Your task to perform on an android device: change keyboard looks Image 0: 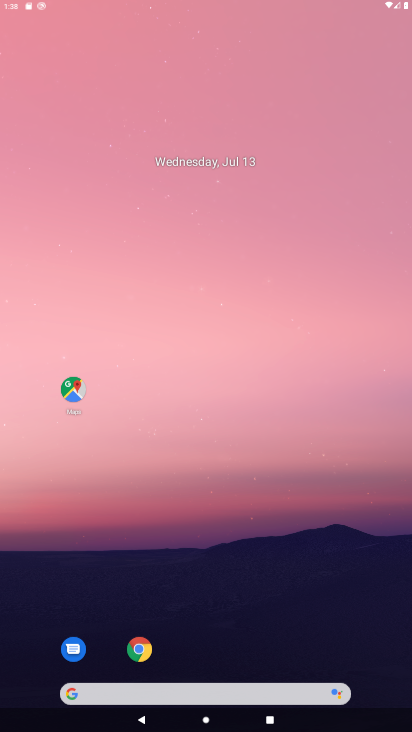
Step 0: press home button
Your task to perform on an android device: change keyboard looks Image 1: 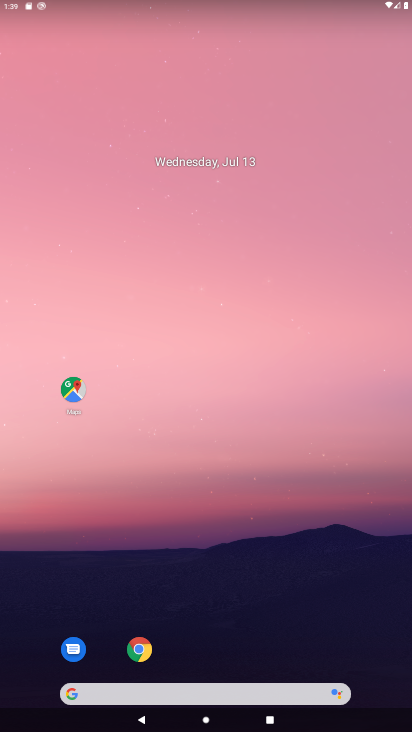
Step 1: drag from (214, 614) to (282, 107)
Your task to perform on an android device: change keyboard looks Image 2: 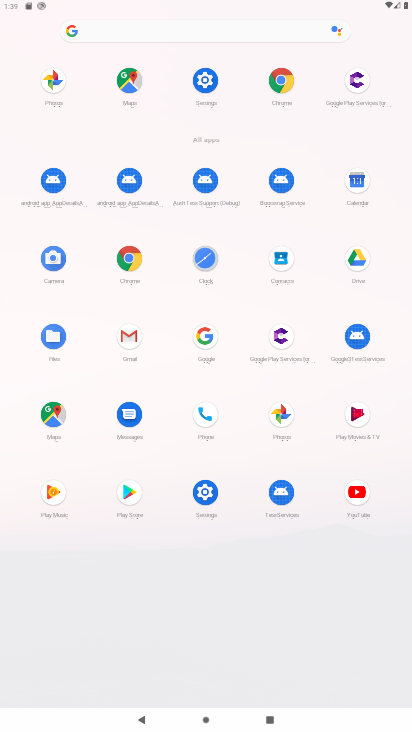
Step 2: click (200, 491)
Your task to perform on an android device: change keyboard looks Image 3: 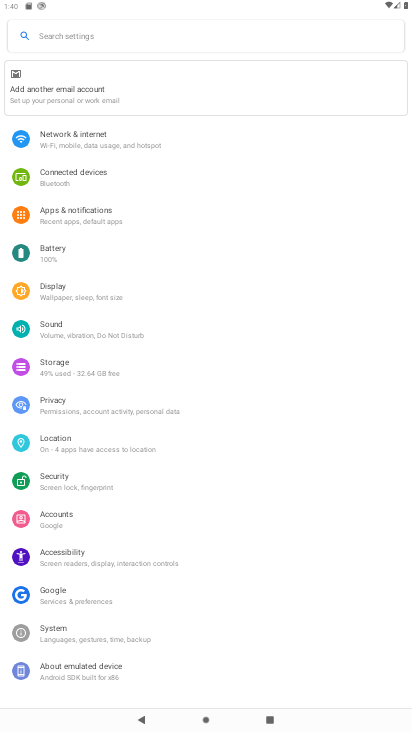
Step 3: click (67, 628)
Your task to perform on an android device: change keyboard looks Image 4: 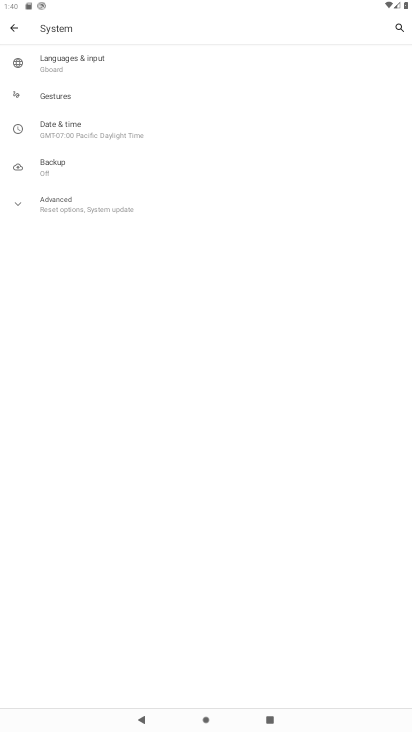
Step 4: click (78, 53)
Your task to perform on an android device: change keyboard looks Image 5: 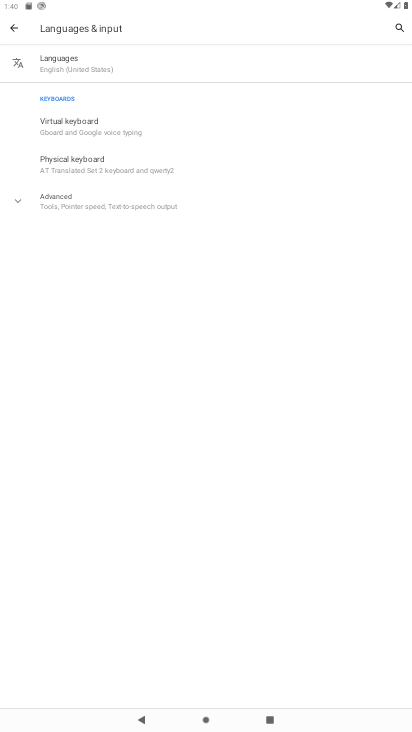
Step 5: click (60, 124)
Your task to perform on an android device: change keyboard looks Image 6: 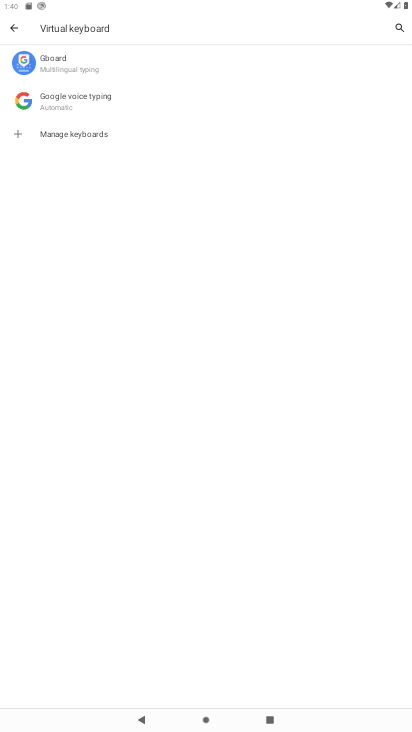
Step 6: click (47, 61)
Your task to perform on an android device: change keyboard looks Image 7: 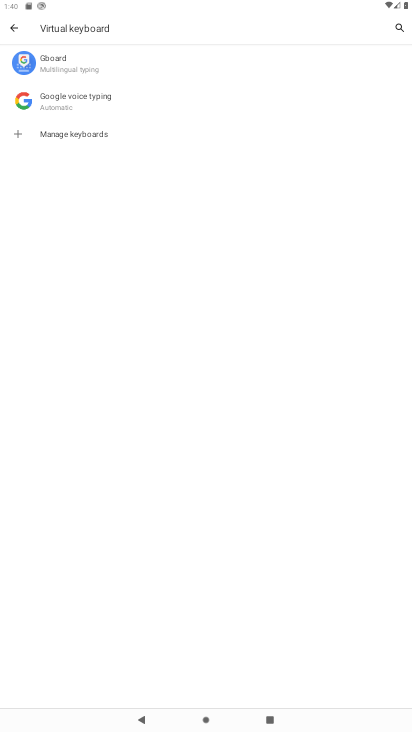
Step 7: click (55, 94)
Your task to perform on an android device: change keyboard looks Image 8: 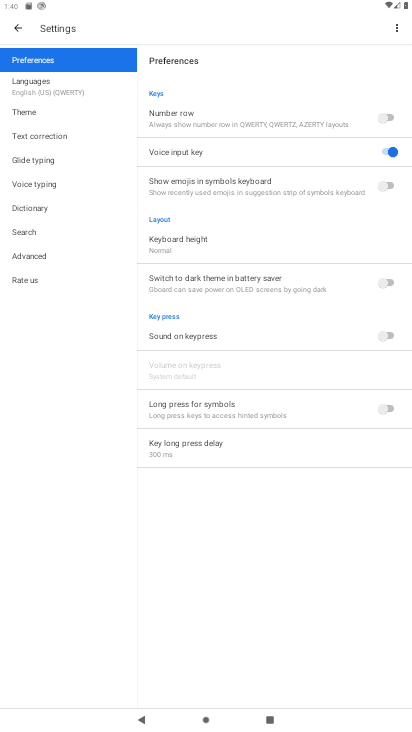
Step 8: click (55, 117)
Your task to perform on an android device: change keyboard looks Image 9: 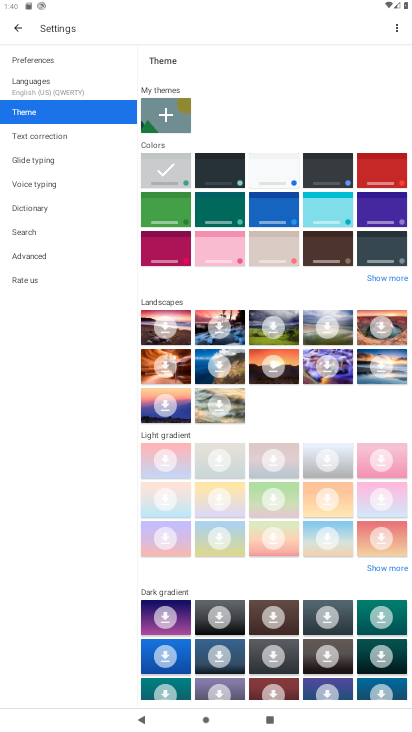
Step 9: click (230, 195)
Your task to perform on an android device: change keyboard looks Image 10: 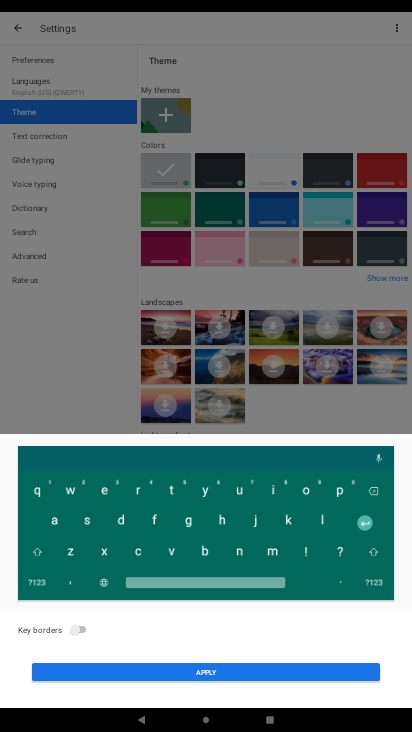
Step 10: click (155, 672)
Your task to perform on an android device: change keyboard looks Image 11: 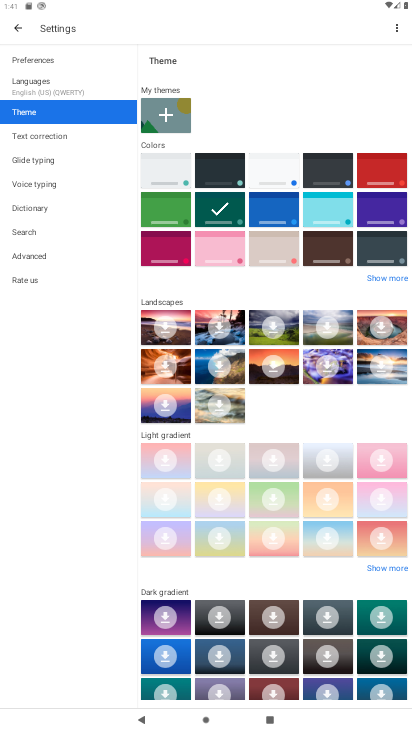
Step 11: task complete